Your task to perform on an android device: Open Amazon Image 0: 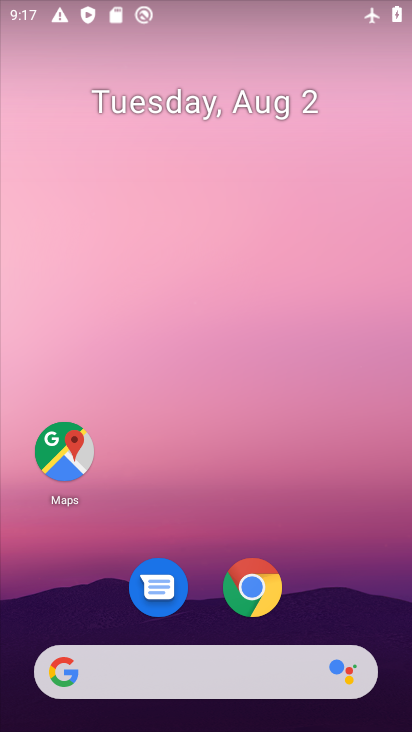
Step 0: click (267, 584)
Your task to perform on an android device: Open Amazon Image 1: 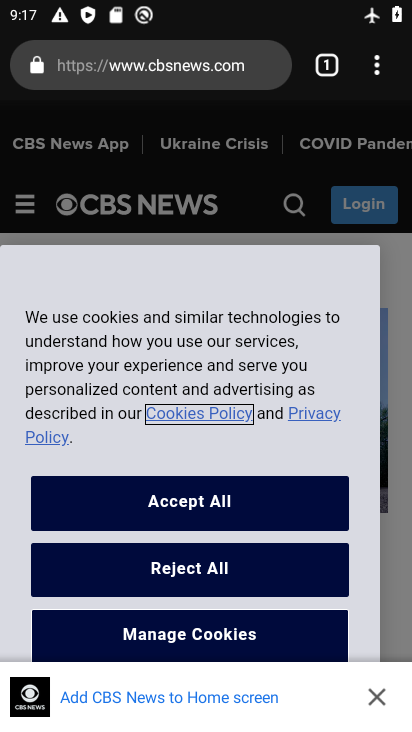
Step 1: click (343, 84)
Your task to perform on an android device: Open Amazon Image 2: 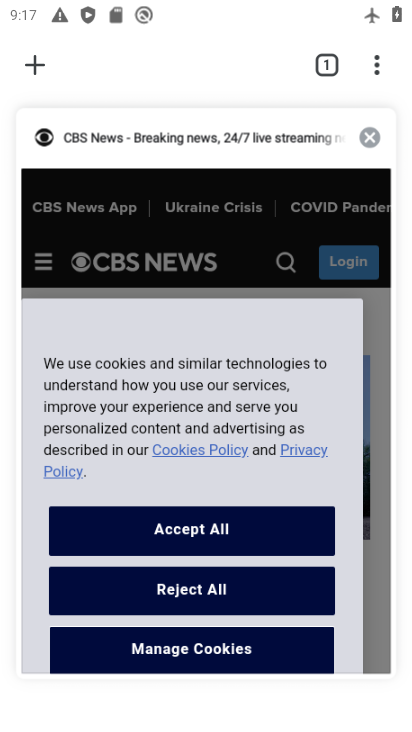
Step 2: click (36, 78)
Your task to perform on an android device: Open Amazon Image 3: 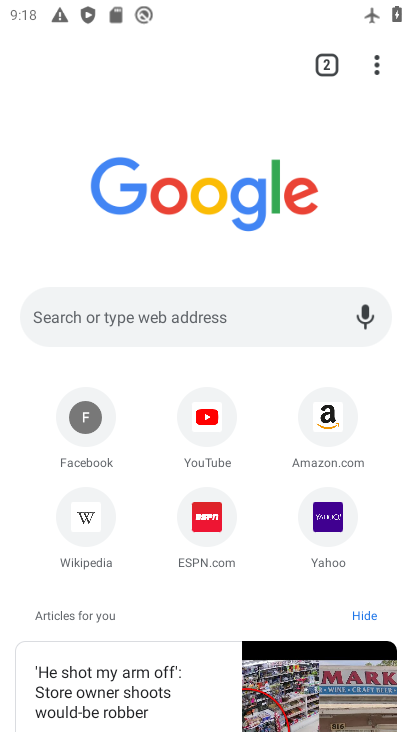
Step 3: click (312, 426)
Your task to perform on an android device: Open Amazon Image 4: 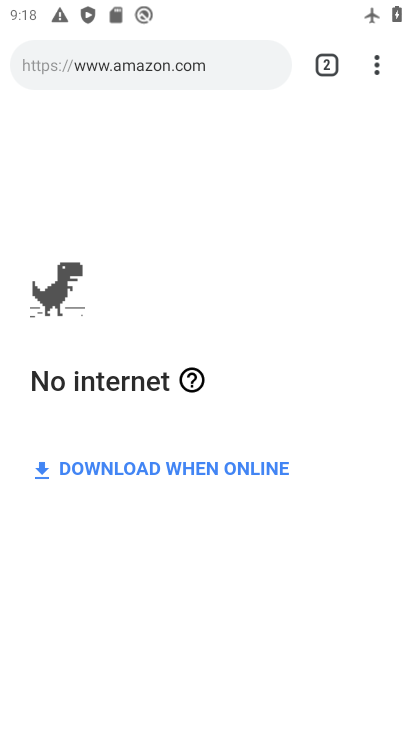
Step 4: task complete